Your task to perform on an android device: Open Youtube and go to the subscriptions tab Image 0: 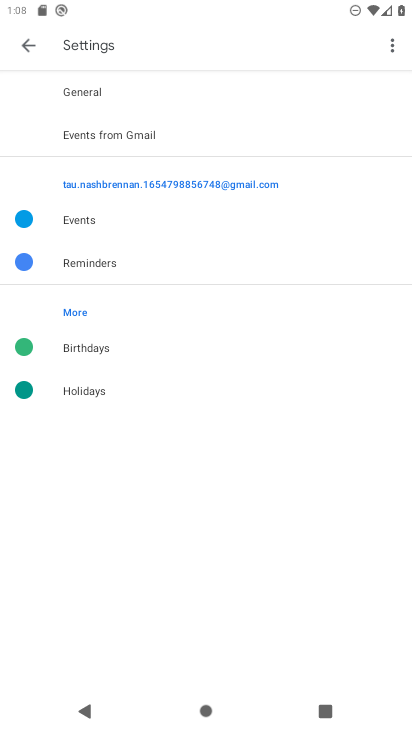
Step 0: press home button
Your task to perform on an android device: Open Youtube and go to the subscriptions tab Image 1: 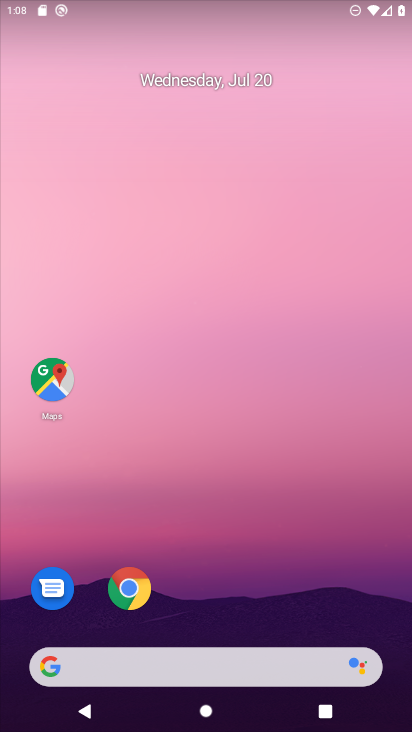
Step 1: drag from (291, 612) to (253, 157)
Your task to perform on an android device: Open Youtube and go to the subscriptions tab Image 2: 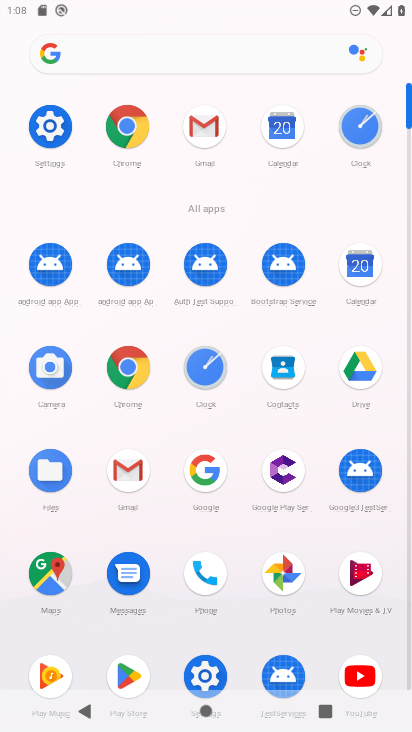
Step 2: click (410, 682)
Your task to perform on an android device: Open Youtube and go to the subscriptions tab Image 3: 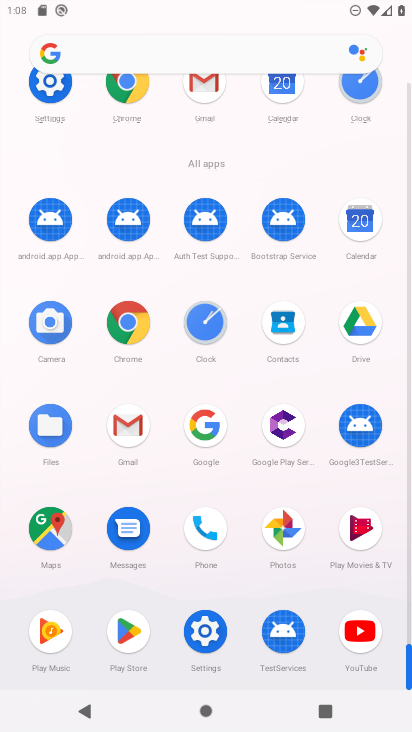
Step 3: click (361, 536)
Your task to perform on an android device: Open Youtube and go to the subscriptions tab Image 4: 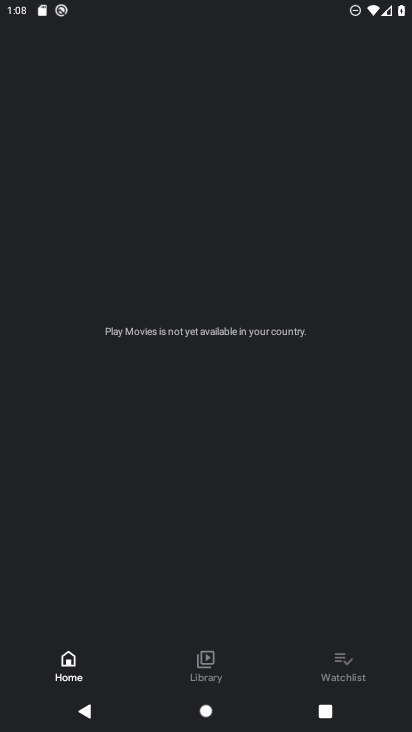
Step 4: press home button
Your task to perform on an android device: Open Youtube and go to the subscriptions tab Image 5: 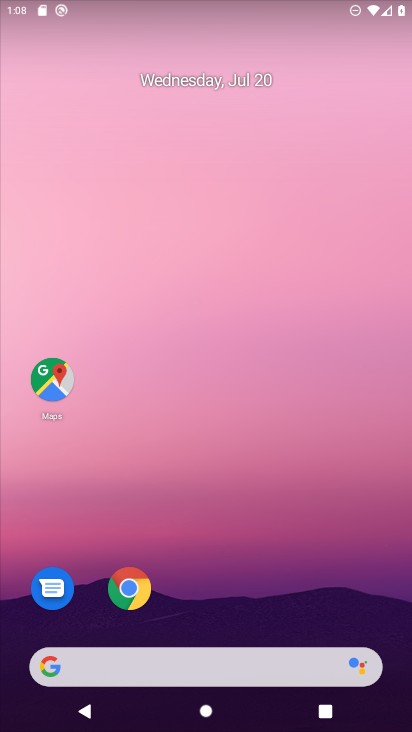
Step 5: drag from (324, 621) to (271, 183)
Your task to perform on an android device: Open Youtube and go to the subscriptions tab Image 6: 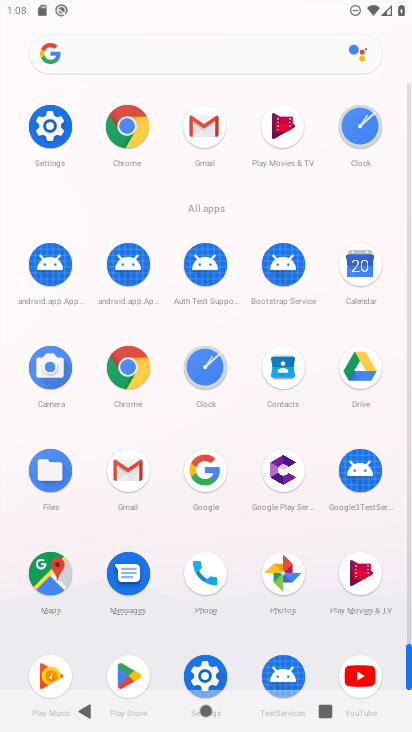
Step 6: click (358, 672)
Your task to perform on an android device: Open Youtube and go to the subscriptions tab Image 7: 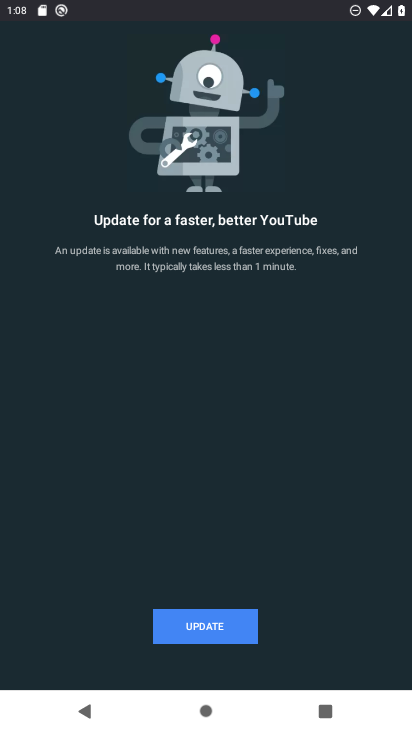
Step 7: click (222, 635)
Your task to perform on an android device: Open Youtube and go to the subscriptions tab Image 8: 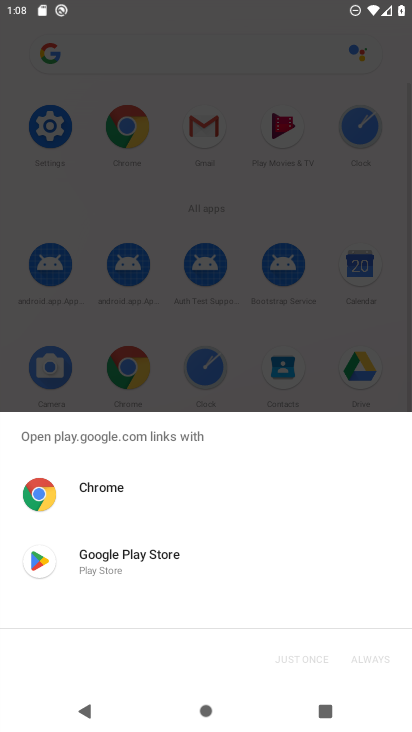
Step 8: click (183, 550)
Your task to perform on an android device: Open Youtube and go to the subscriptions tab Image 9: 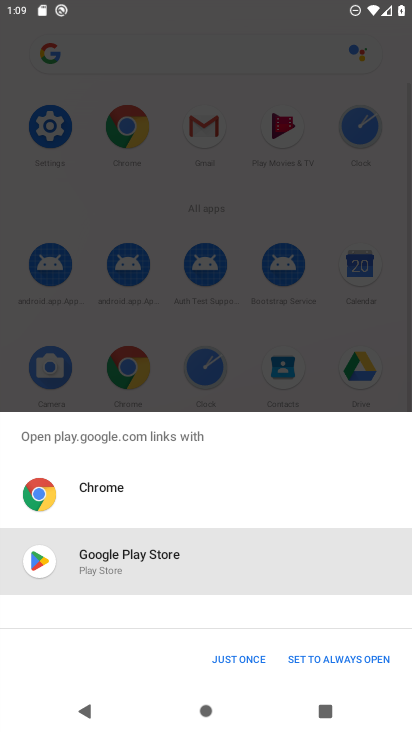
Step 9: click (251, 669)
Your task to perform on an android device: Open Youtube and go to the subscriptions tab Image 10: 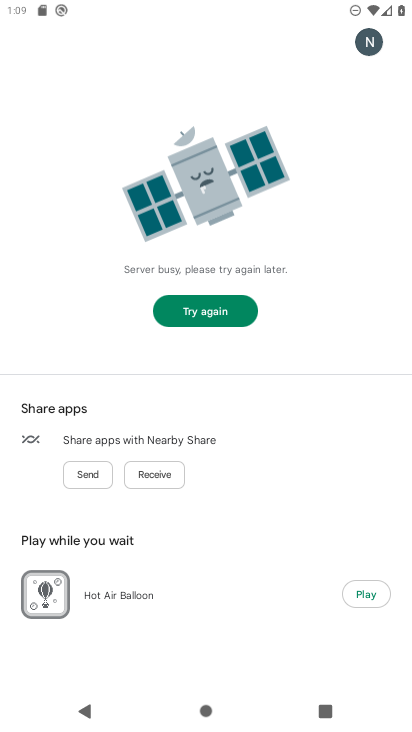
Step 10: task complete